Your task to perform on an android device: Open Google Maps and go to "Timeline" Image 0: 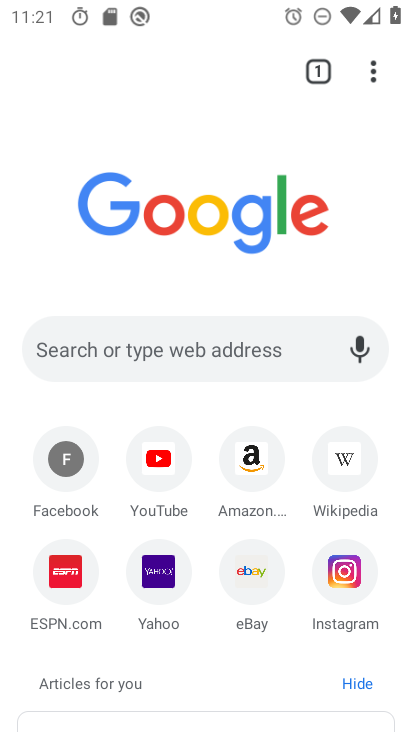
Step 0: press home button
Your task to perform on an android device: Open Google Maps and go to "Timeline" Image 1: 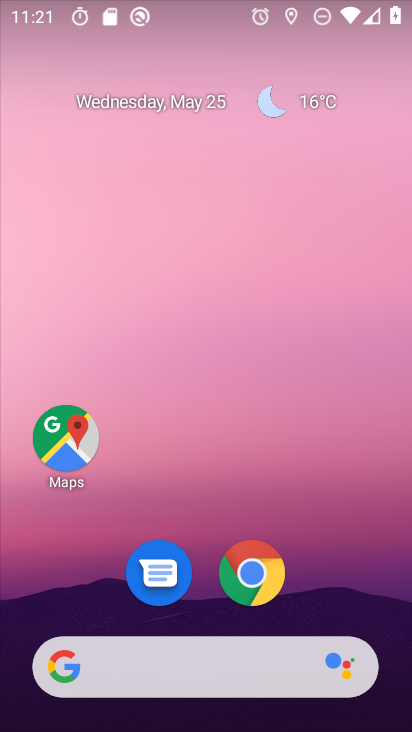
Step 1: click (62, 447)
Your task to perform on an android device: Open Google Maps and go to "Timeline" Image 2: 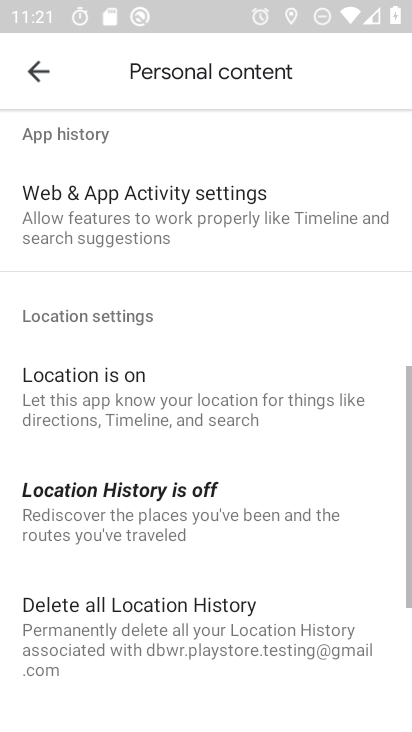
Step 2: click (41, 67)
Your task to perform on an android device: Open Google Maps and go to "Timeline" Image 3: 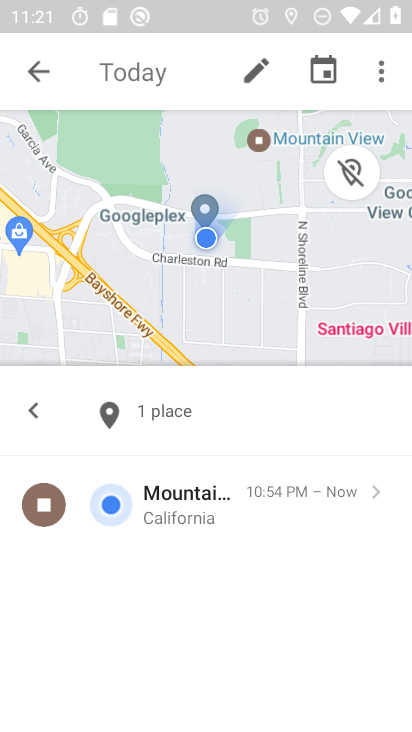
Step 3: task complete